Your task to perform on an android device: turn off smart reply in the gmail app Image 0: 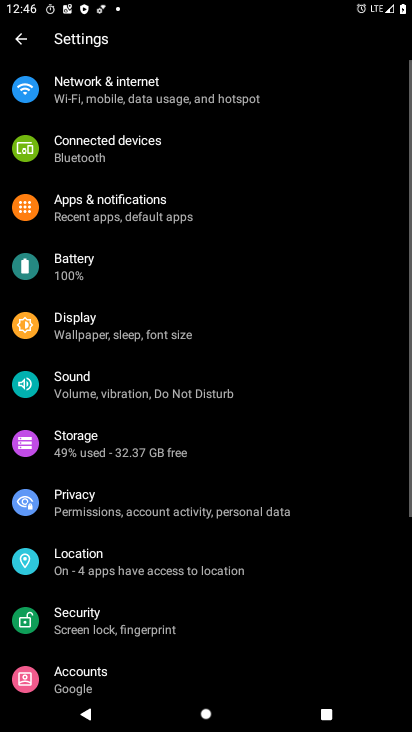
Step 0: press home button
Your task to perform on an android device: turn off smart reply in the gmail app Image 1: 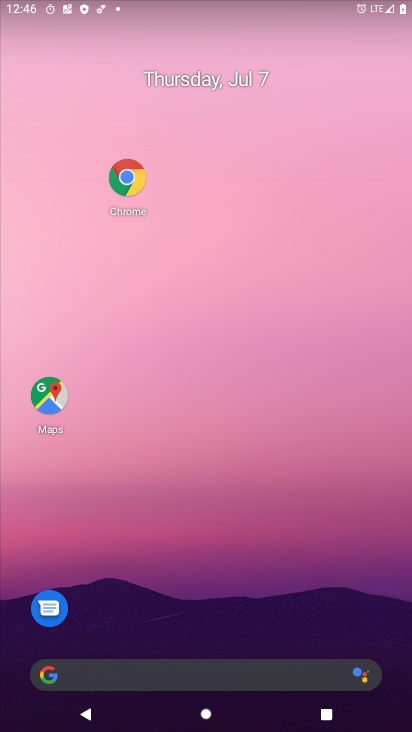
Step 1: drag from (162, 640) to (178, 310)
Your task to perform on an android device: turn off smart reply in the gmail app Image 2: 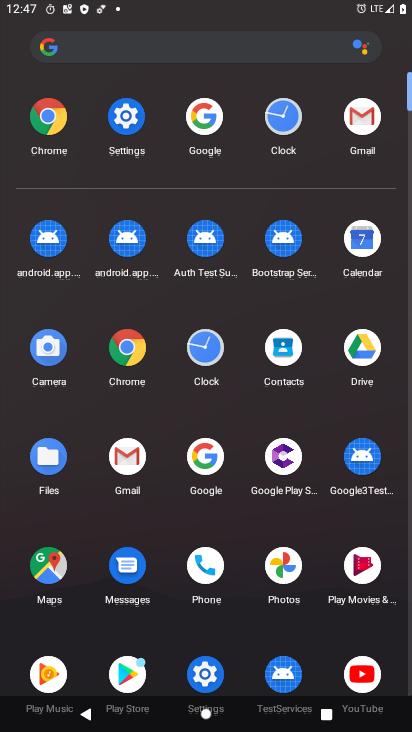
Step 2: click (371, 117)
Your task to perform on an android device: turn off smart reply in the gmail app Image 3: 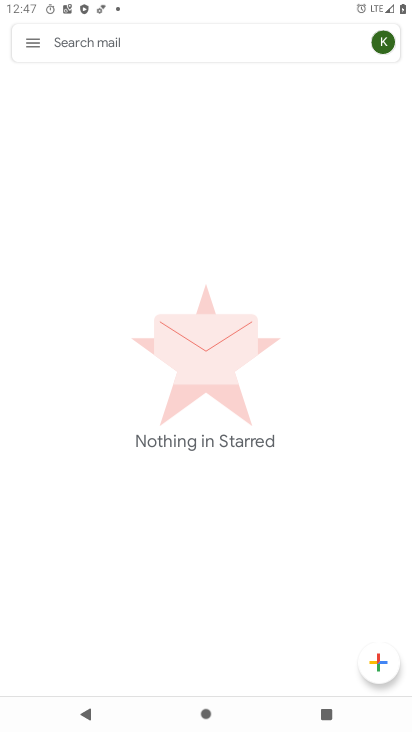
Step 3: click (33, 43)
Your task to perform on an android device: turn off smart reply in the gmail app Image 4: 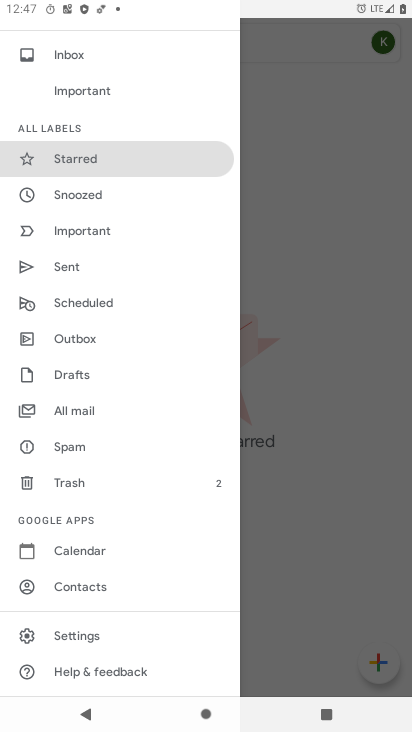
Step 4: click (66, 634)
Your task to perform on an android device: turn off smart reply in the gmail app Image 5: 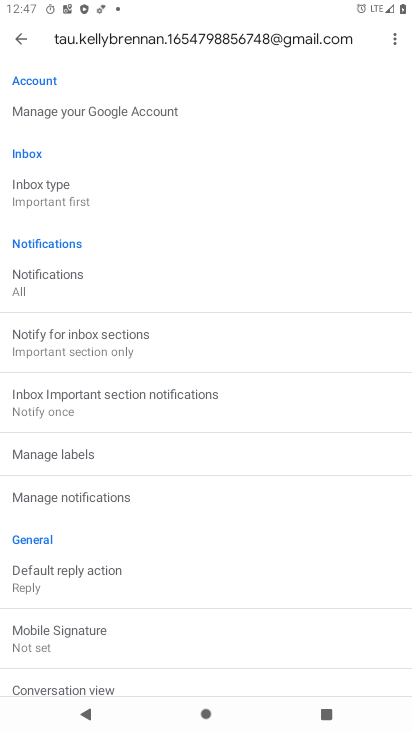
Step 5: drag from (83, 628) to (106, 235)
Your task to perform on an android device: turn off smart reply in the gmail app Image 6: 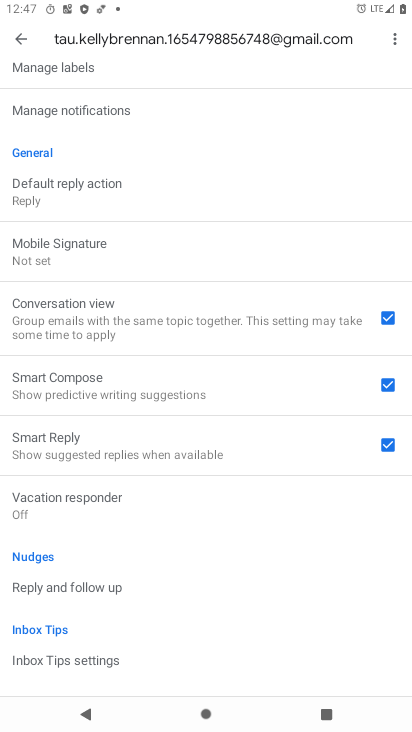
Step 6: click (382, 448)
Your task to perform on an android device: turn off smart reply in the gmail app Image 7: 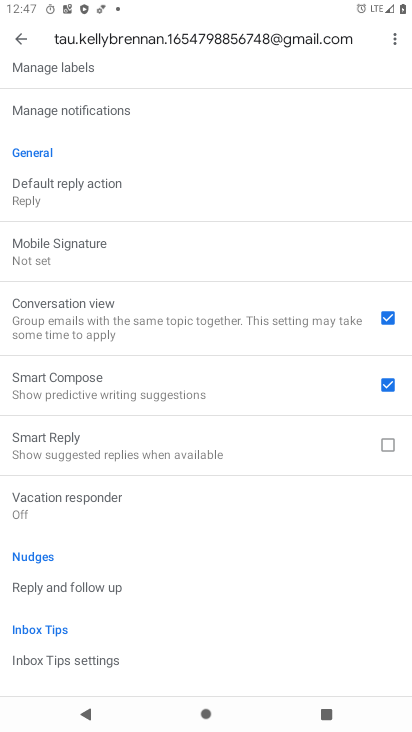
Step 7: task complete